Your task to perform on an android device: Go to settings Image 0: 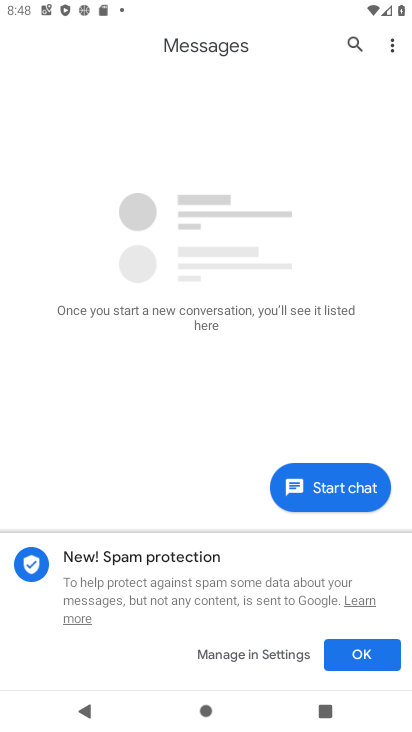
Step 0: press home button
Your task to perform on an android device: Go to settings Image 1: 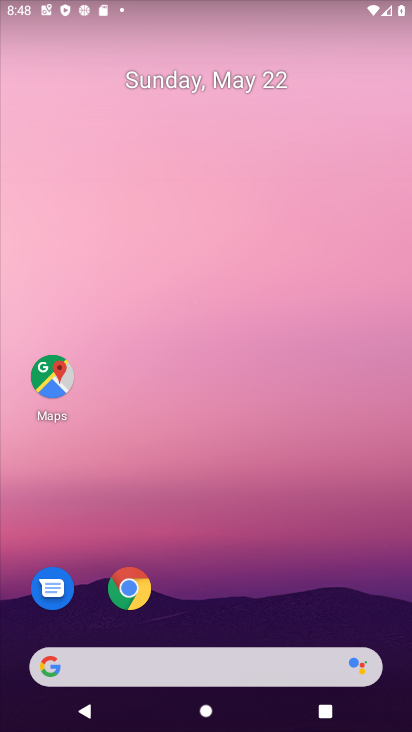
Step 1: drag from (237, 593) to (214, 77)
Your task to perform on an android device: Go to settings Image 2: 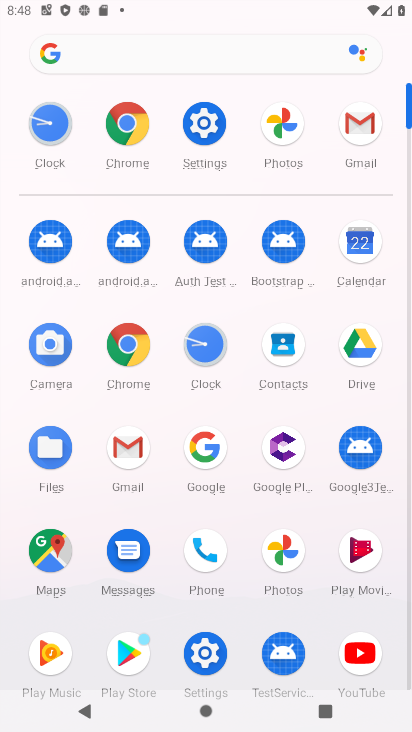
Step 2: click (202, 116)
Your task to perform on an android device: Go to settings Image 3: 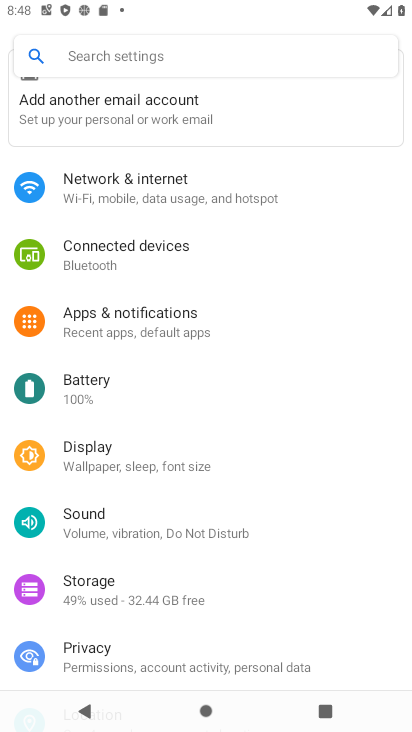
Step 3: task complete